Your task to perform on an android device: Turn on the flashlight Image 0: 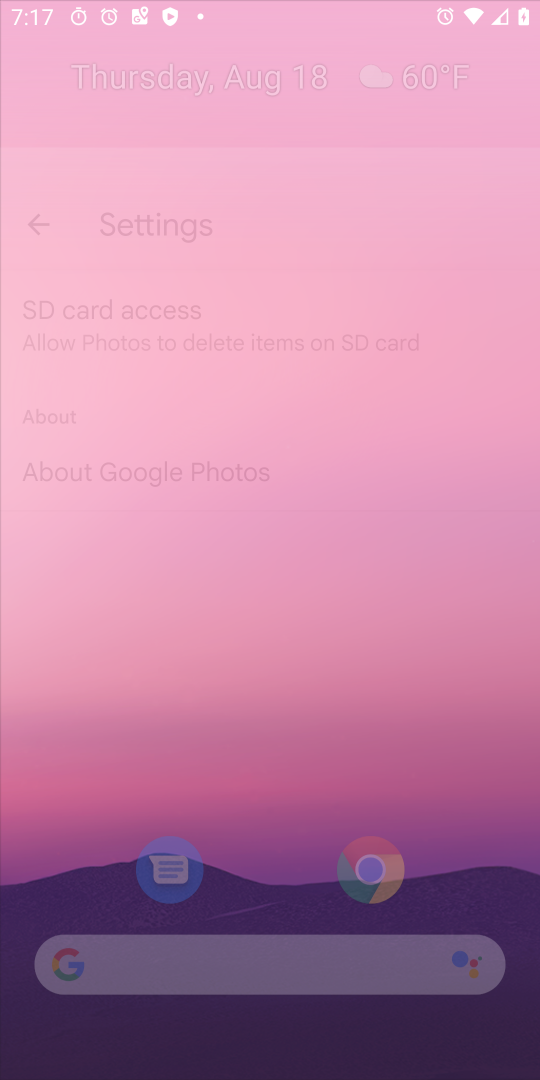
Step 0: press home button
Your task to perform on an android device: Turn on the flashlight Image 1: 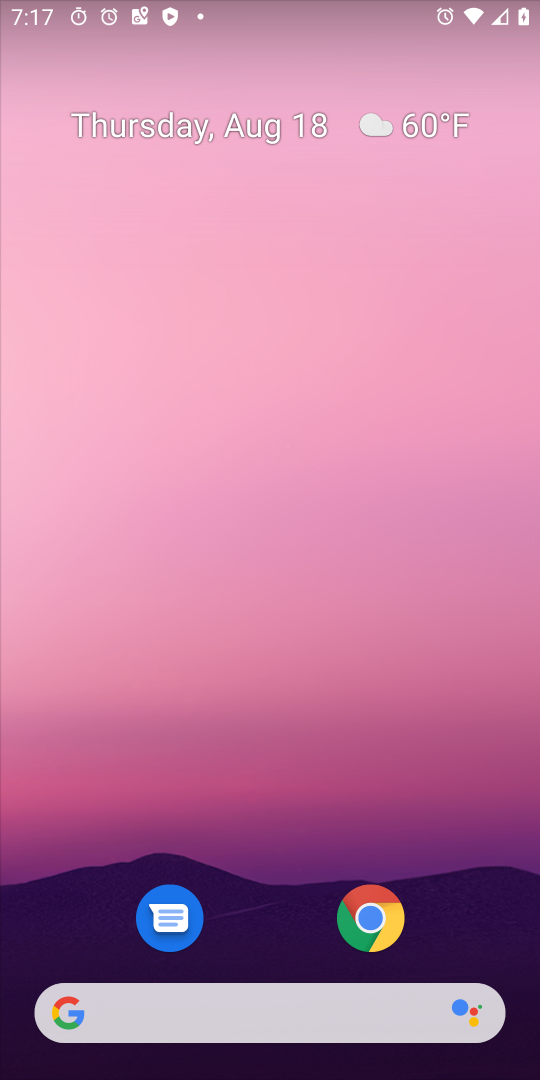
Step 1: task complete